Your task to perform on an android device: Empty the shopping cart on ebay.com. Search for corsair k70 on ebay.com, select the first entry, and add it to the cart. Image 0: 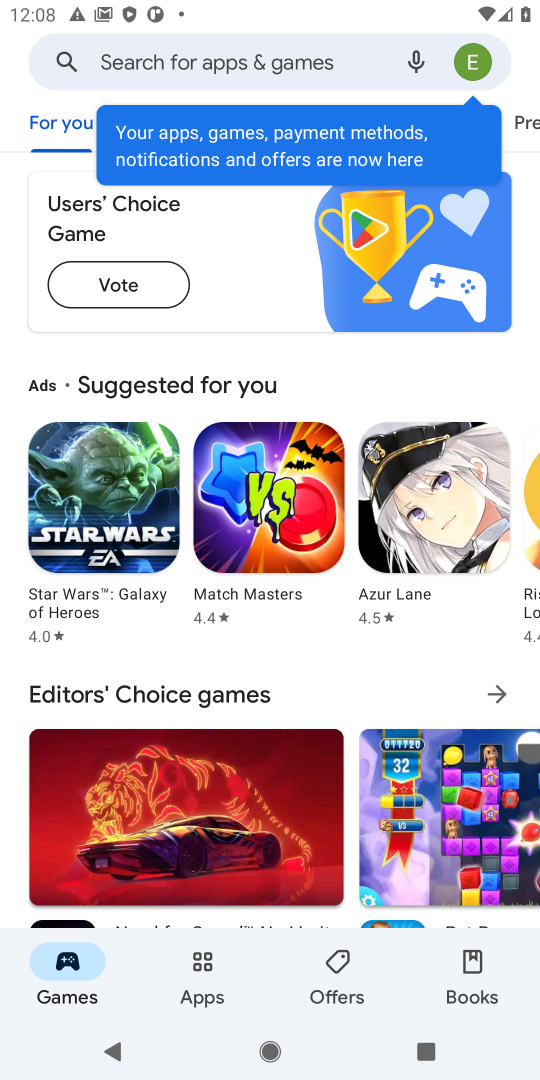
Step 0: press home button
Your task to perform on an android device: Empty the shopping cart on ebay.com. Search for corsair k70 on ebay.com, select the first entry, and add it to the cart. Image 1: 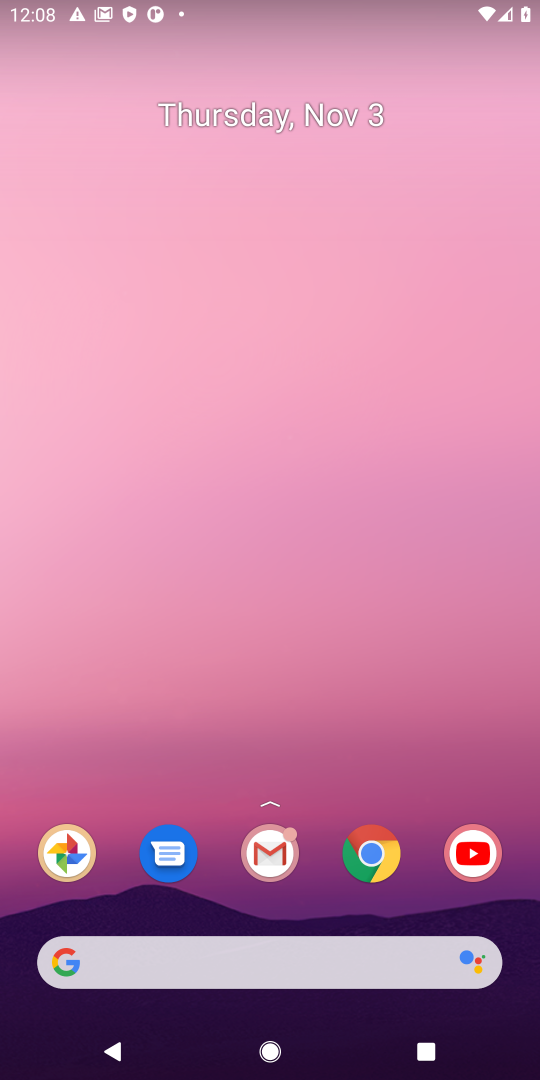
Step 1: click (376, 869)
Your task to perform on an android device: Empty the shopping cart on ebay.com. Search for corsair k70 on ebay.com, select the first entry, and add it to the cart. Image 2: 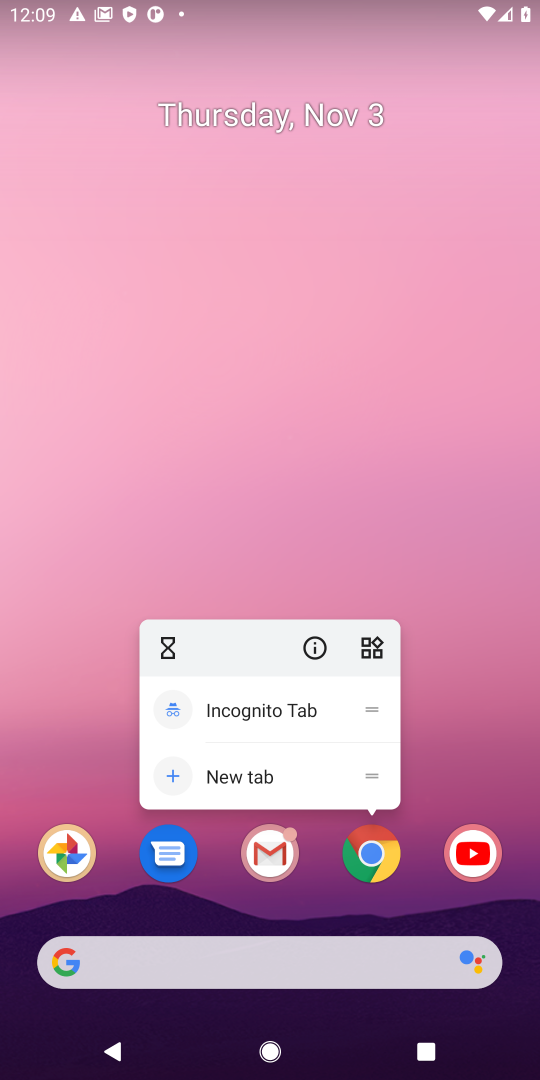
Step 2: click (385, 865)
Your task to perform on an android device: Empty the shopping cart on ebay.com. Search for corsair k70 on ebay.com, select the first entry, and add it to the cart. Image 3: 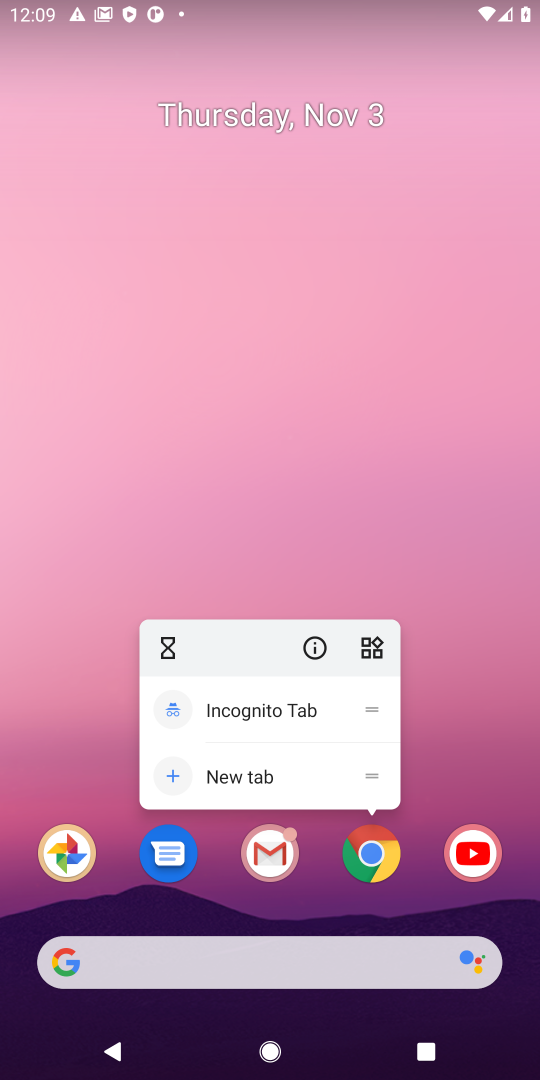
Step 3: click (378, 848)
Your task to perform on an android device: Empty the shopping cart on ebay.com. Search for corsair k70 on ebay.com, select the first entry, and add it to the cart. Image 4: 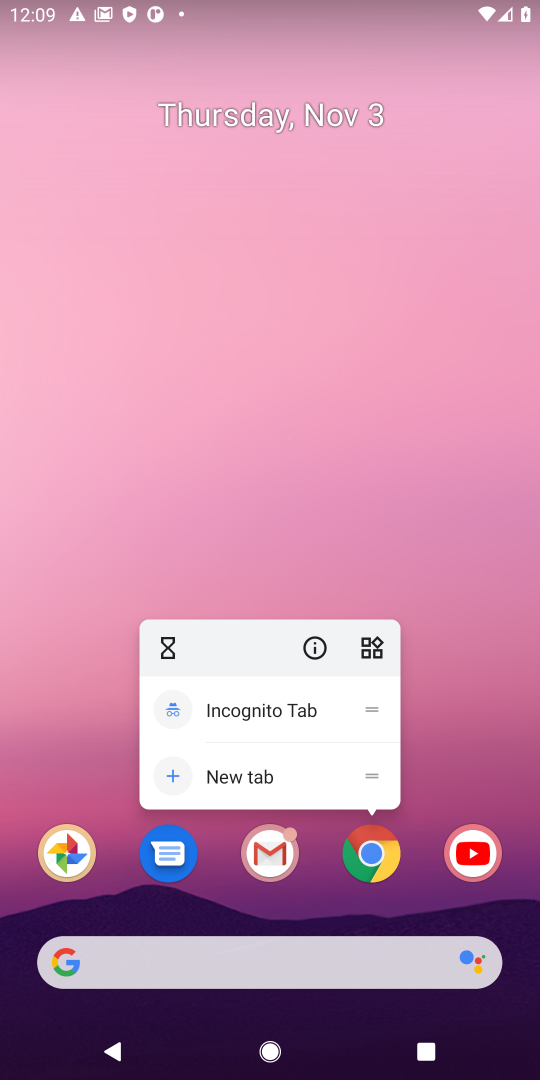
Step 4: click (378, 847)
Your task to perform on an android device: Empty the shopping cart on ebay.com. Search for corsair k70 on ebay.com, select the first entry, and add it to the cart. Image 5: 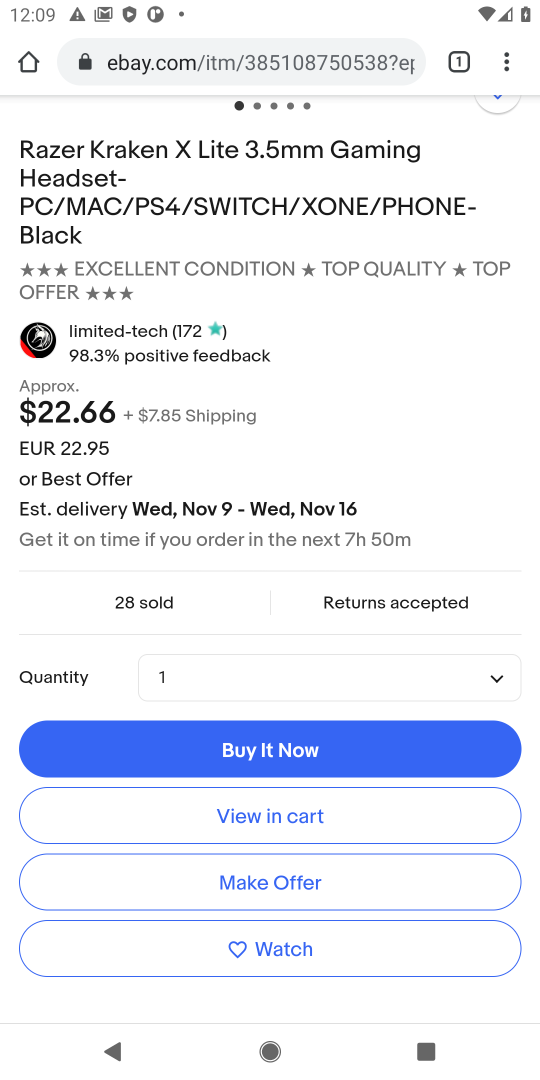
Step 5: drag from (266, 216) to (159, 657)
Your task to perform on an android device: Empty the shopping cart on ebay.com. Search for corsair k70 on ebay.com, select the first entry, and add it to the cart. Image 6: 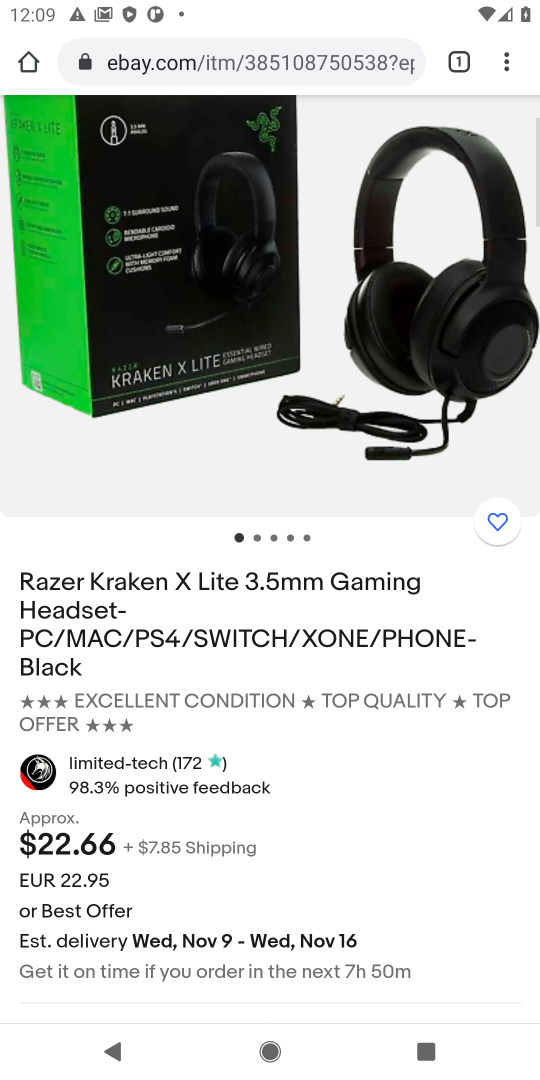
Step 6: drag from (213, 229) to (198, 920)
Your task to perform on an android device: Empty the shopping cart on ebay.com. Search for corsair k70 on ebay.com, select the first entry, and add it to the cart. Image 7: 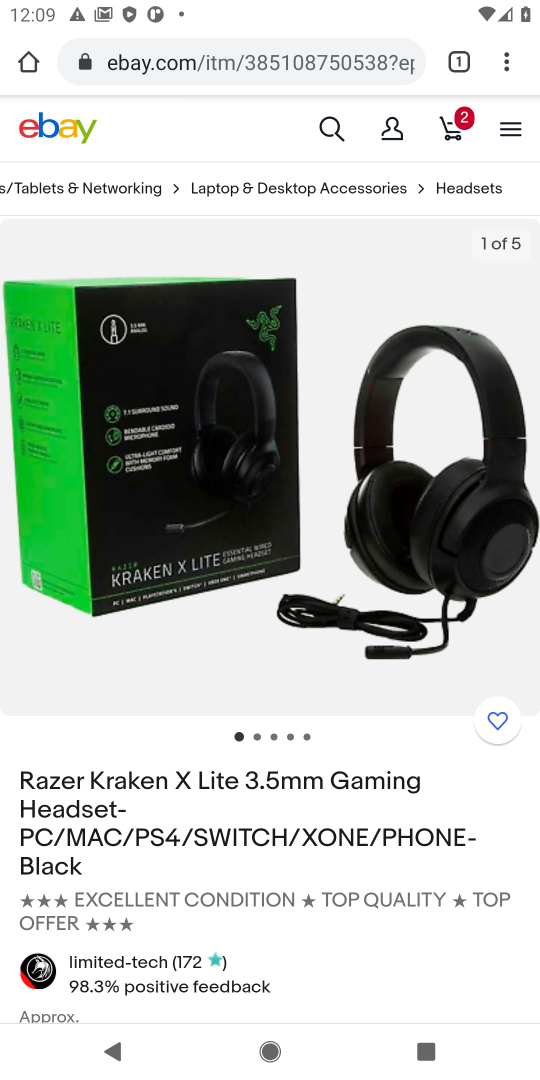
Step 7: click (329, 119)
Your task to perform on an android device: Empty the shopping cart on ebay.com. Search for corsair k70 on ebay.com, select the first entry, and add it to the cart. Image 8: 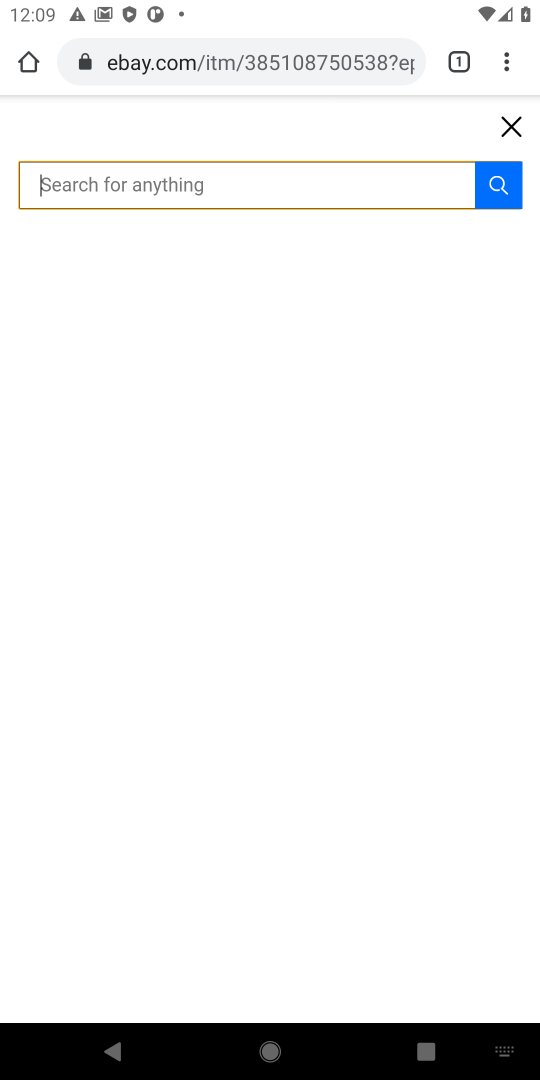
Step 8: type "corsair k70 "
Your task to perform on an android device: Empty the shopping cart on ebay.com. Search for corsair k70 on ebay.com, select the first entry, and add it to the cart. Image 9: 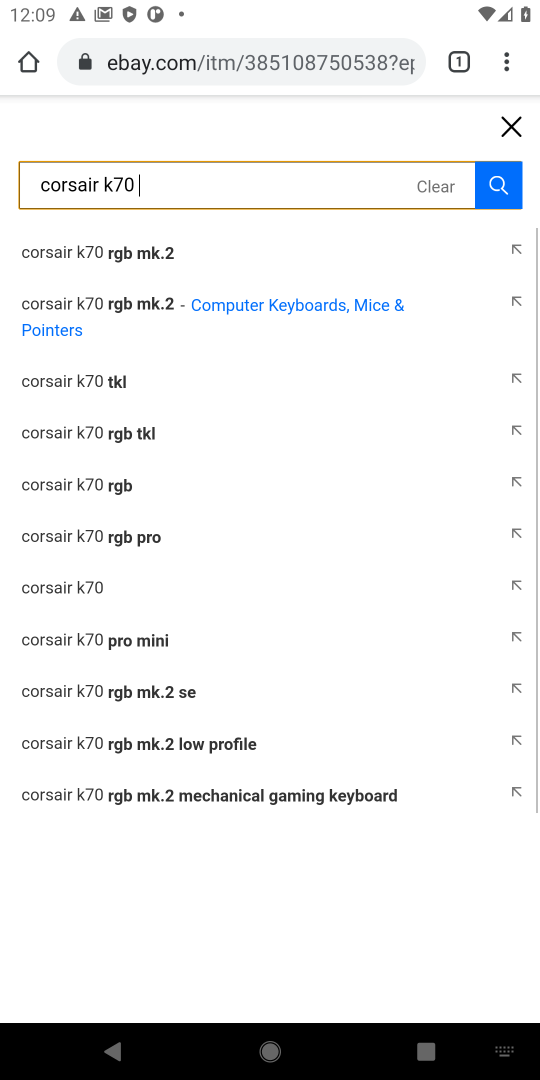
Step 9: press enter
Your task to perform on an android device: Empty the shopping cart on ebay.com. Search for corsair k70 on ebay.com, select the first entry, and add it to the cart. Image 10: 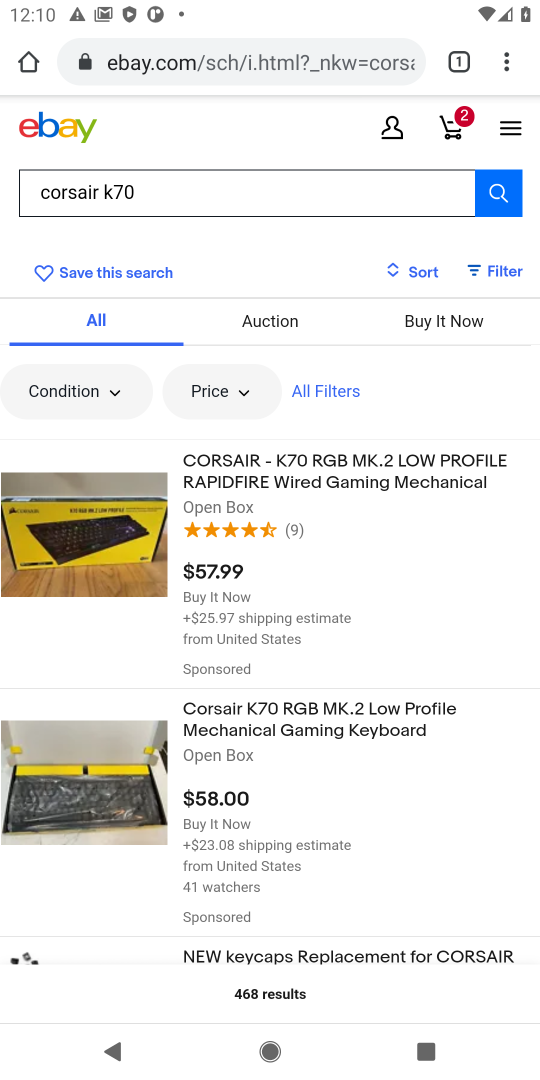
Step 10: click (215, 480)
Your task to perform on an android device: Empty the shopping cart on ebay.com. Search for corsair k70 on ebay.com, select the first entry, and add it to the cart. Image 11: 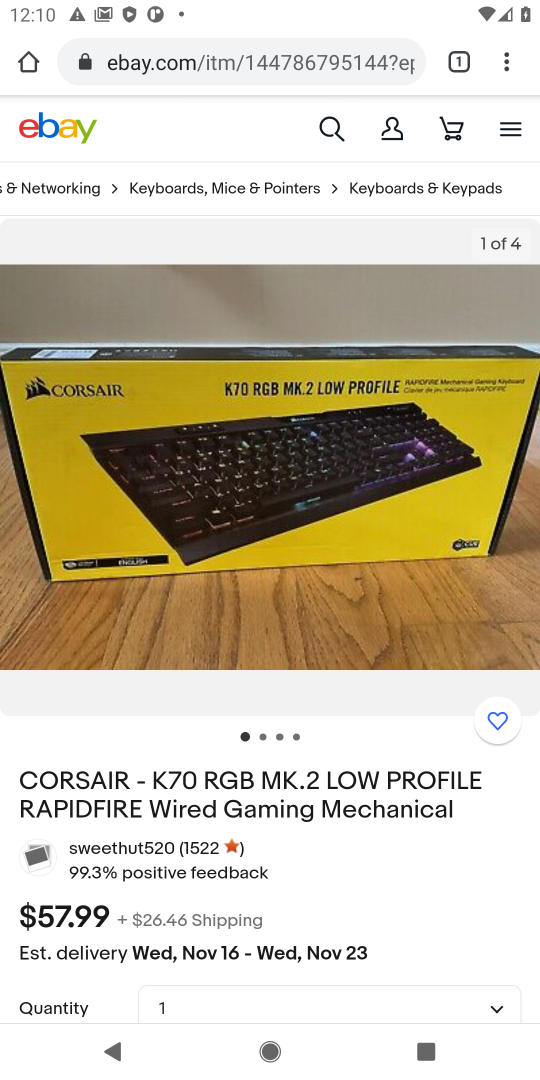
Step 11: drag from (250, 933) to (434, 250)
Your task to perform on an android device: Empty the shopping cart on ebay.com. Search for corsair k70 on ebay.com, select the first entry, and add it to the cart. Image 12: 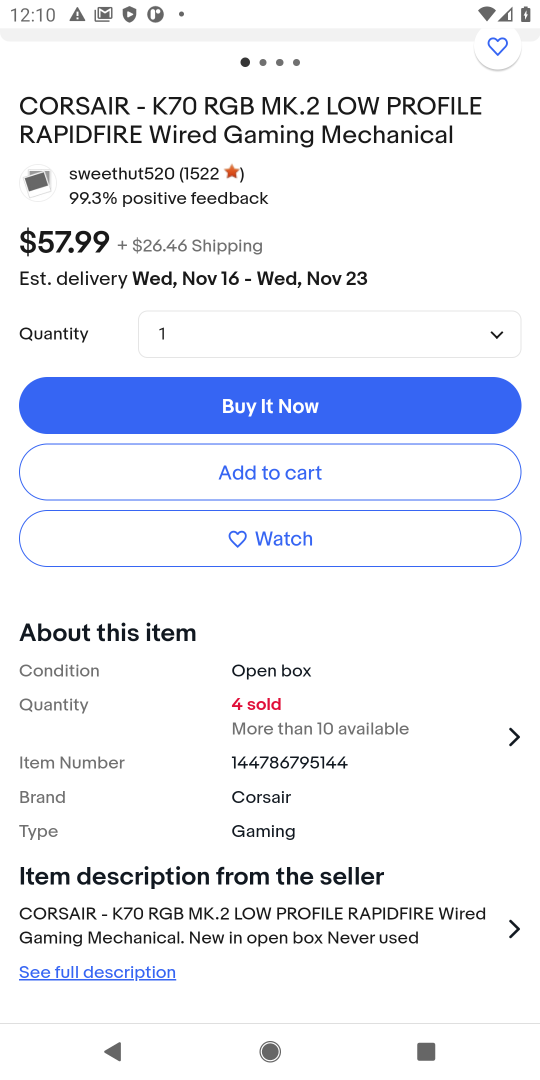
Step 12: click (307, 476)
Your task to perform on an android device: Empty the shopping cart on ebay.com. Search for corsair k70 on ebay.com, select the first entry, and add it to the cart. Image 13: 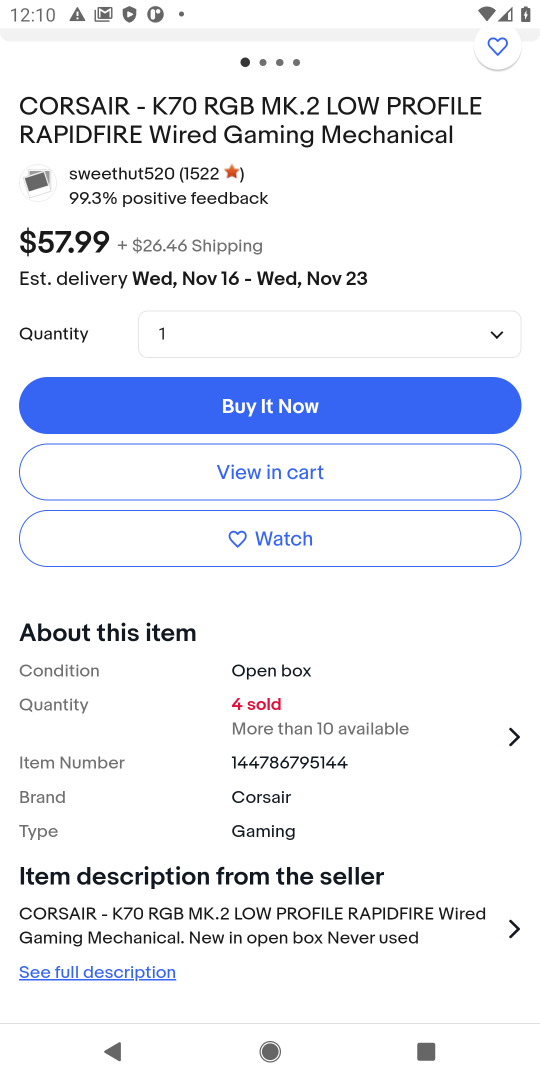
Step 13: click (306, 469)
Your task to perform on an android device: Empty the shopping cart on ebay.com. Search for corsair k70 on ebay.com, select the first entry, and add it to the cart. Image 14: 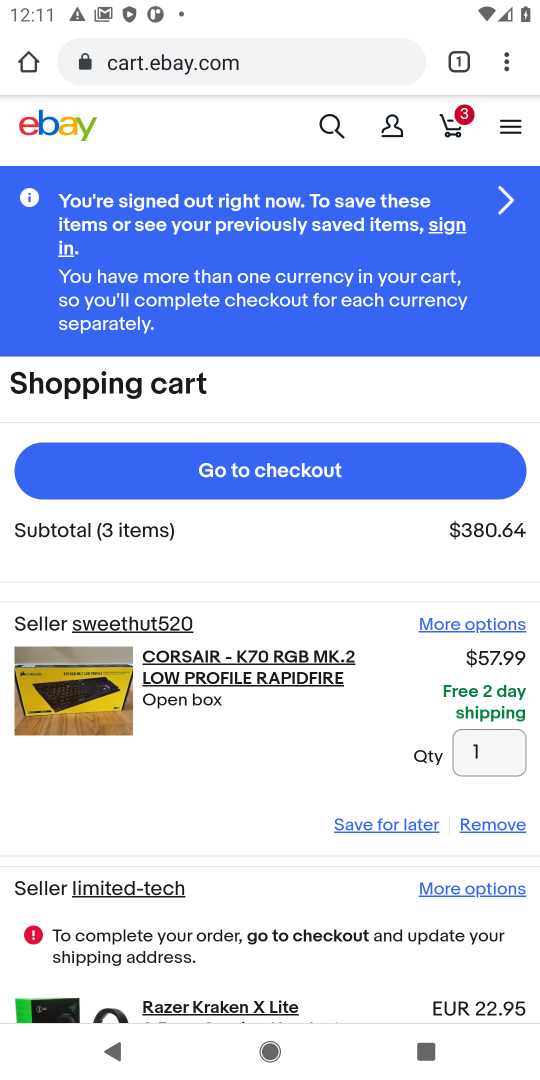
Step 14: task complete